Your task to perform on an android device: Show me popular videos on Youtube Image 0: 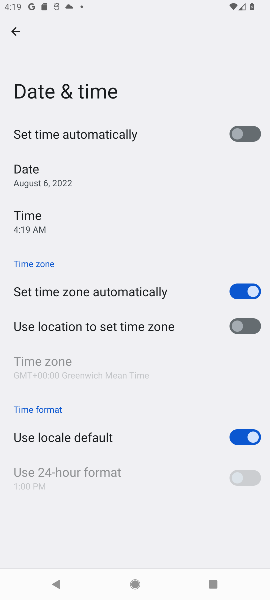
Step 0: click (14, 22)
Your task to perform on an android device: Show me popular videos on Youtube Image 1: 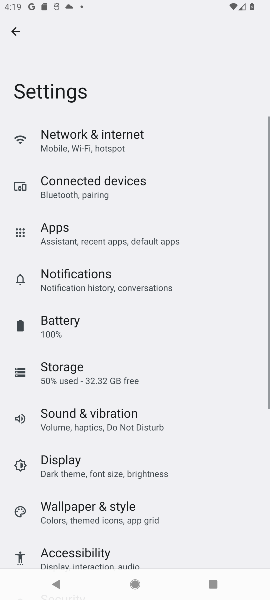
Step 1: press back button
Your task to perform on an android device: Show me popular videos on Youtube Image 2: 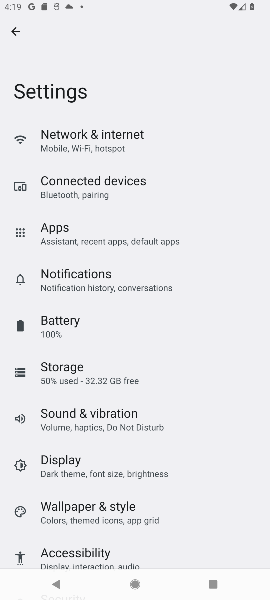
Step 2: press back button
Your task to perform on an android device: Show me popular videos on Youtube Image 3: 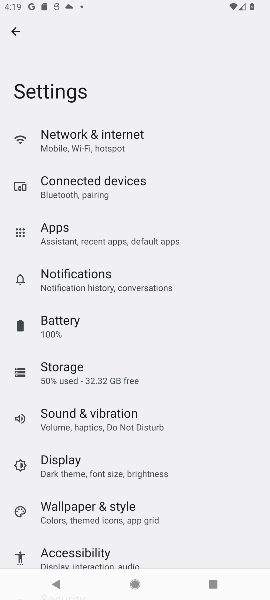
Step 3: press back button
Your task to perform on an android device: Show me popular videos on Youtube Image 4: 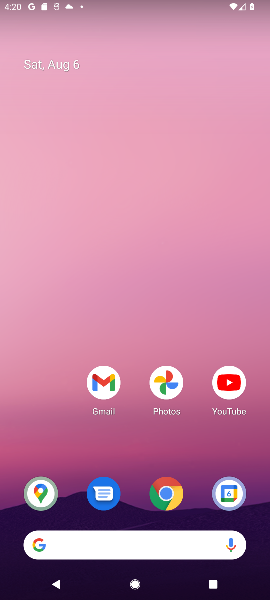
Step 4: click (229, 389)
Your task to perform on an android device: Show me popular videos on Youtube Image 5: 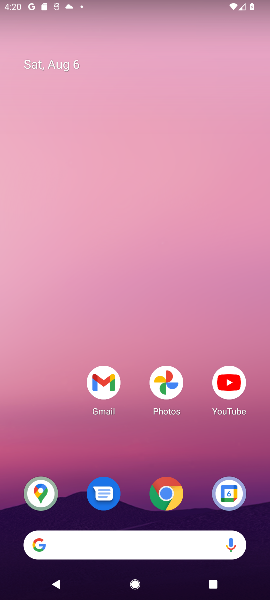
Step 5: click (233, 394)
Your task to perform on an android device: Show me popular videos on Youtube Image 6: 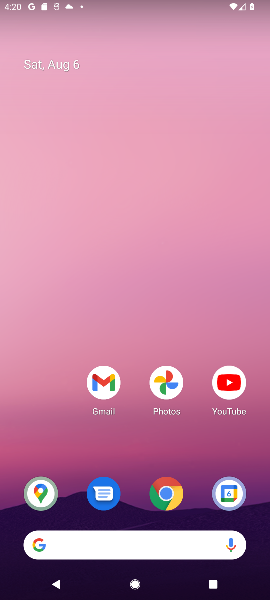
Step 6: click (233, 389)
Your task to perform on an android device: Show me popular videos on Youtube Image 7: 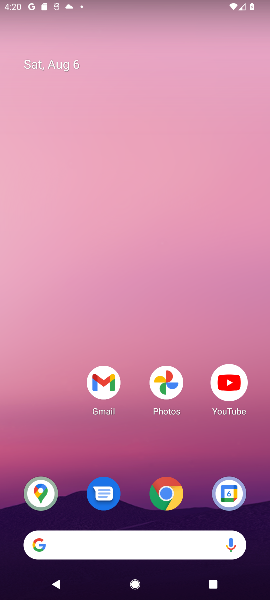
Step 7: click (234, 389)
Your task to perform on an android device: Show me popular videos on Youtube Image 8: 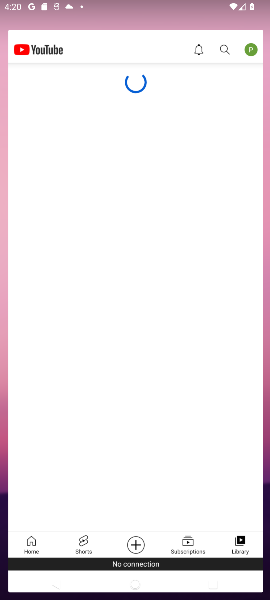
Step 8: click (237, 387)
Your task to perform on an android device: Show me popular videos on Youtube Image 9: 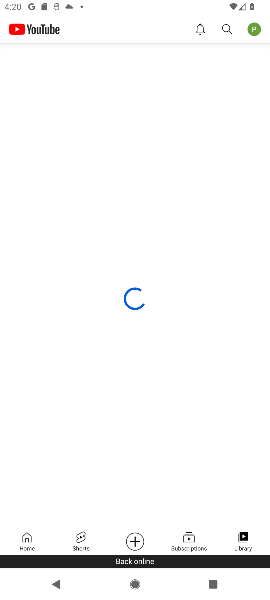
Step 9: click (245, 380)
Your task to perform on an android device: Show me popular videos on Youtube Image 10: 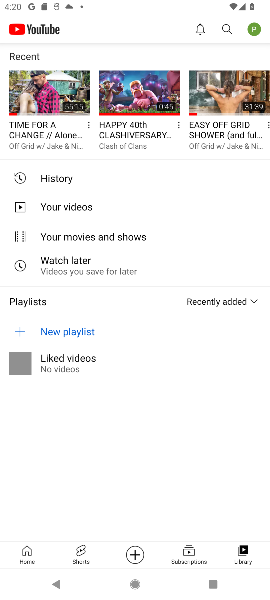
Step 10: drag from (156, 334) to (140, 219)
Your task to perform on an android device: Show me popular videos on Youtube Image 11: 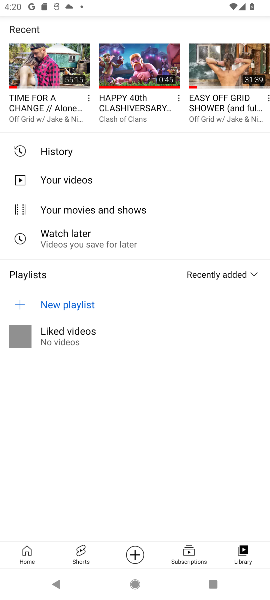
Step 11: drag from (109, 72) to (148, 342)
Your task to perform on an android device: Show me popular videos on Youtube Image 12: 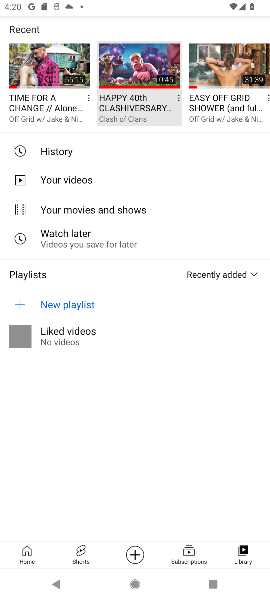
Step 12: drag from (120, 75) to (162, 400)
Your task to perform on an android device: Show me popular videos on Youtube Image 13: 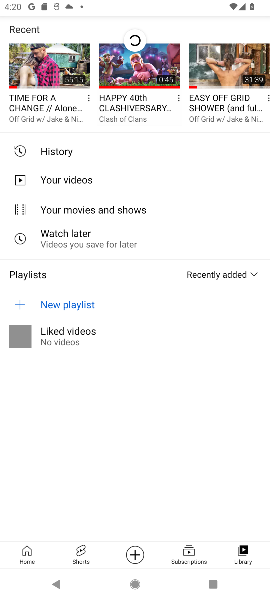
Step 13: drag from (155, 165) to (155, 484)
Your task to perform on an android device: Show me popular videos on Youtube Image 14: 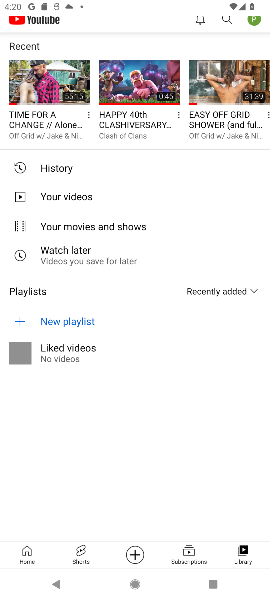
Step 14: drag from (102, 115) to (123, 433)
Your task to perform on an android device: Show me popular videos on Youtube Image 15: 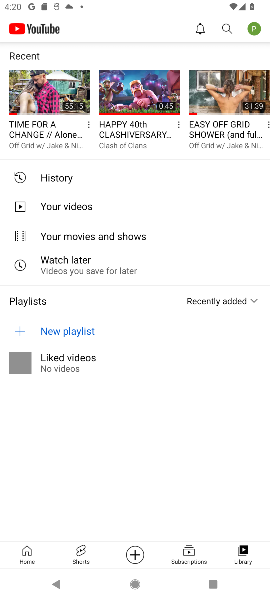
Step 15: click (229, 26)
Your task to perform on an android device: Show me popular videos on Youtube Image 16: 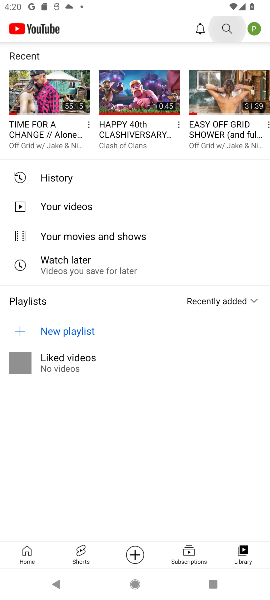
Step 16: click (229, 26)
Your task to perform on an android device: Show me popular videos on Youtube Image 17: 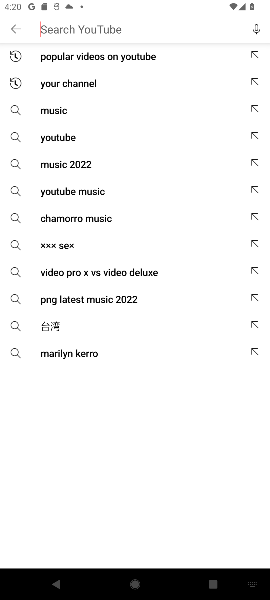
Step 17: type "popular"
Your task to perform on an android device: Show me popular videos on Youtube Image 18: 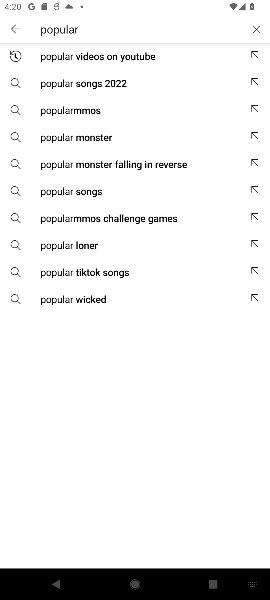
Step 18: click (116, 51)
Your task to perform on an android device: Show me popular videos on Youtube Image 19: 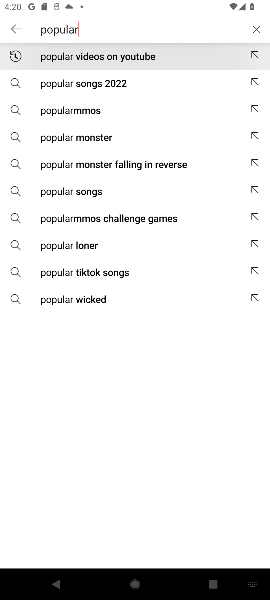
Step 19: click (117, 55)
Your task to perform on an android device: Show me popular videos on Youtube Image 20: 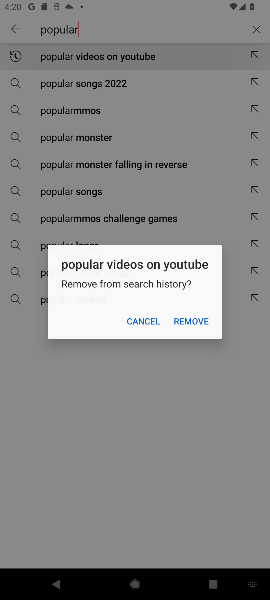
Step 20: click (117, 55)
Your task to perform on an android device: Show me popular videos on Youtube Image 21: 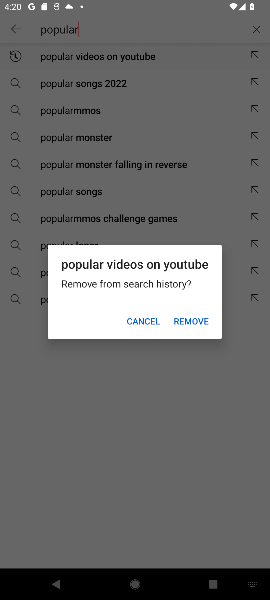
Step 21: click (117, 55)
Your task to perform on an android device: Show me popular videos on Youtube Image 22: 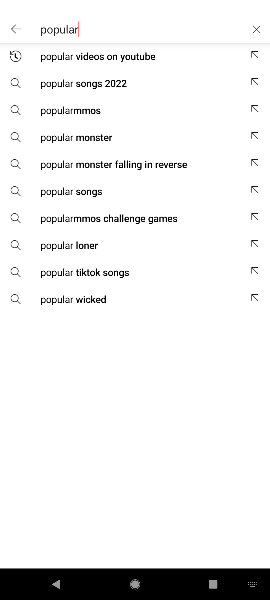
Step 22: click (117, 55)
Your task to perform on an android device: Show me popular videos on Youtube Image 23: 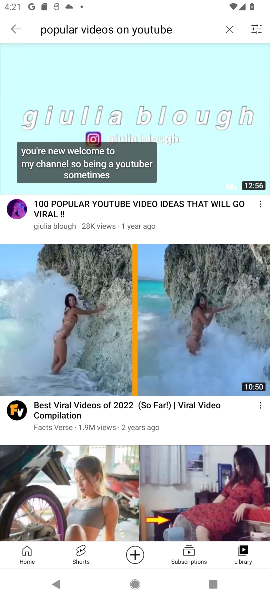
Step 23: task complete